Your task to perform on an android device: delete a single message in the gmail app Image 0: 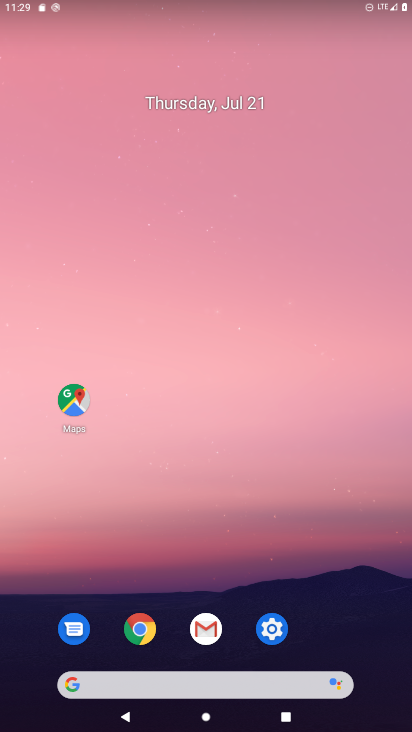
Step 0: click (200, 623)
Your task to perform on an android device: delete a single message in the gmail app Image 1: 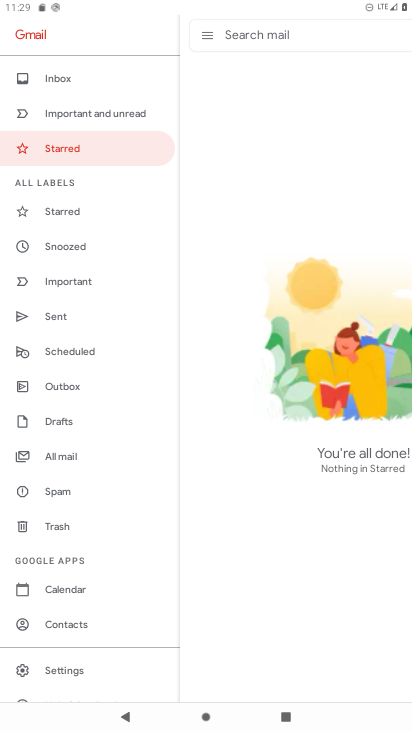
Step 1: click (72, 458)
Your task to perform on an android device: delete a single message in the gmail app Image 2: 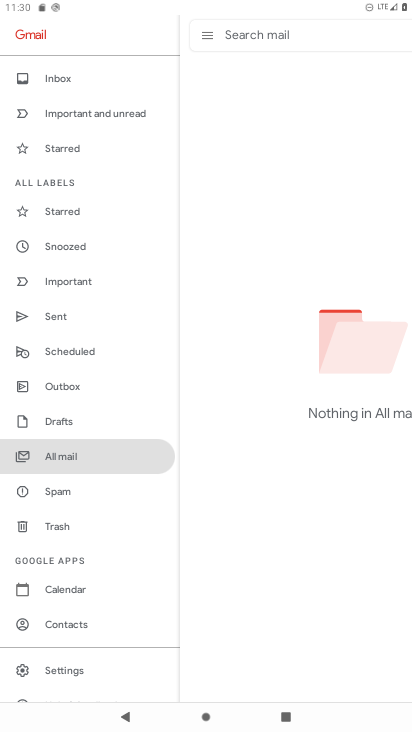
Step 2: task complete